Your task to perform on an android device: open device folders in google photos Image 0: 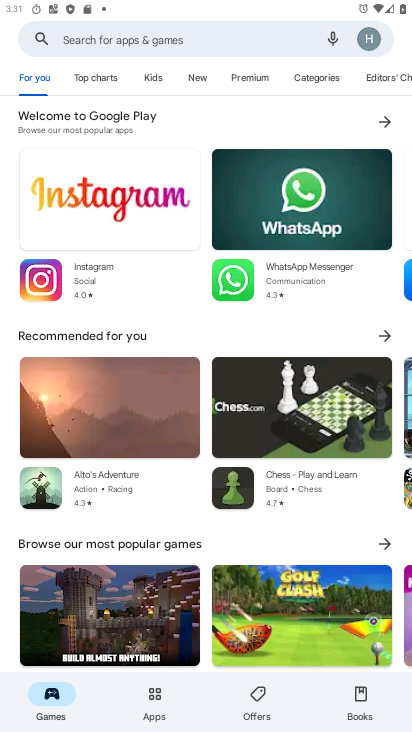
Step 0: press home button
Your task to perform on an android device: open device folders in google photos Image 1: 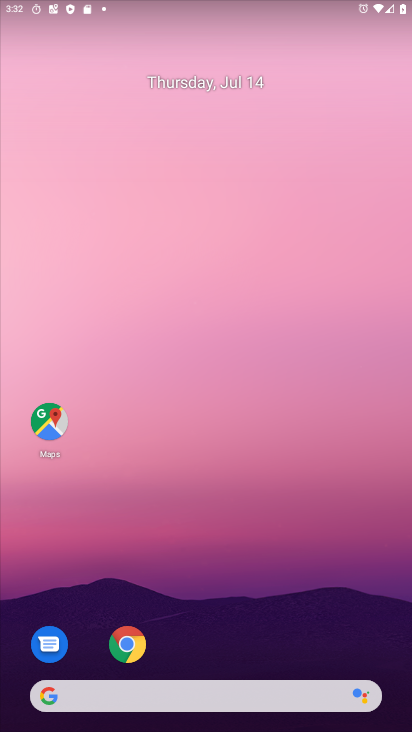
Step 1: drag from (144, 405) to (178, 295)
Your task to perform on an android device: open device folders in google photos Image 2: 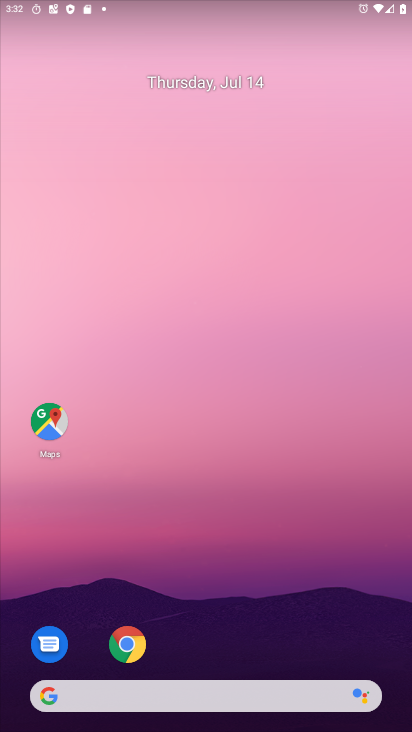
Step 2: drag from (22, 683) to (273, 74)
Your task to perform on an android device: open device folders in google photos Image 3: 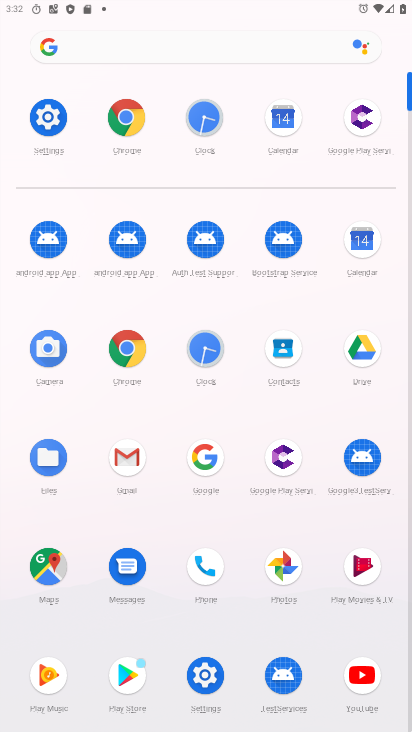
Step 3: click (277, 577)
Your task to perform on an android device: open device folders in google photos Image 4: 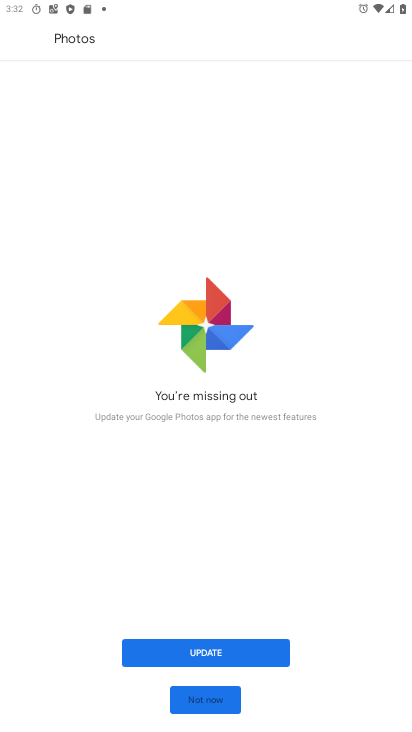
Step 4: click (197, 689)
Your task to perform on an android device: open device folders in google photos Image 5: 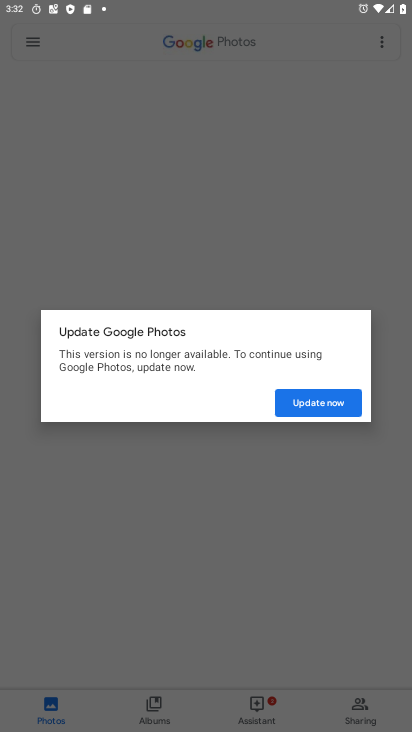
Step 5: click (318, 398)
Your task to perform on an android device: open device folders in google photos Image 6: 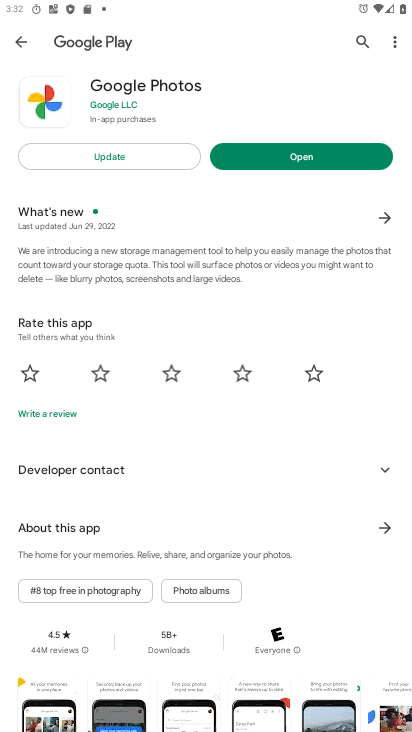
Step 6: click (284, 148)
Your task to perform on an android device: open device folders in google photos Image 7: 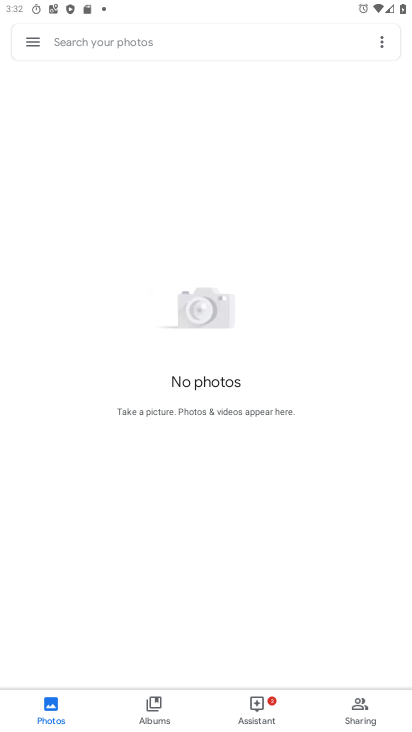
Step 7: click (26, 40)
Your task to perform on an android device: open device folders in google photos Image 8: 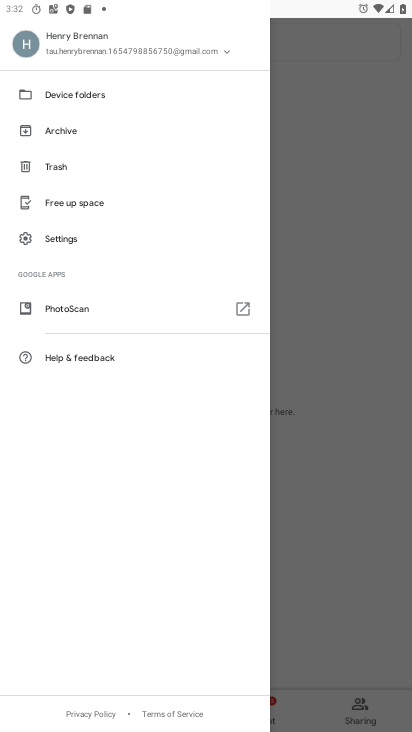
Step 8: click (73, 97)
Your task to perform on an android device: open device folders in google photos Image 9: 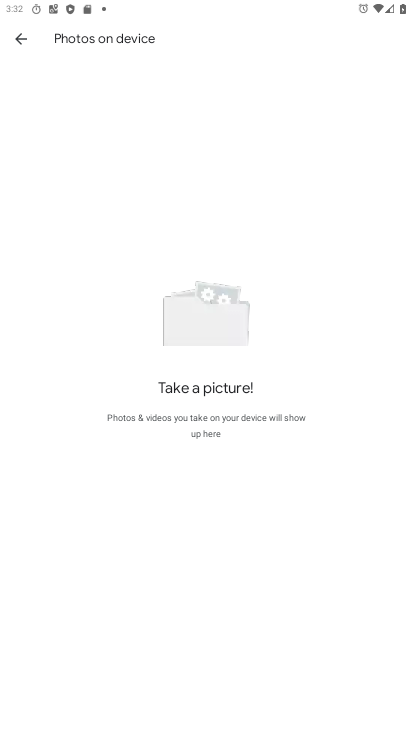
Step 9: task complete